Your task to perform on an android device: turn off notifications in google photos Image 0: 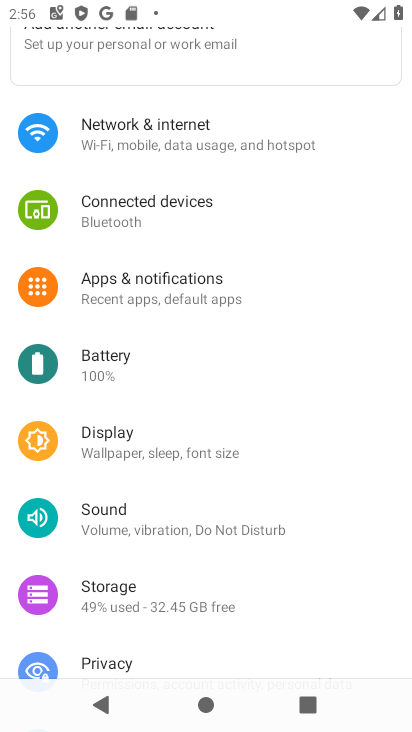
Step 0: press home button
Your task to perform on an android device: turn off notifications in google photos Image 1: 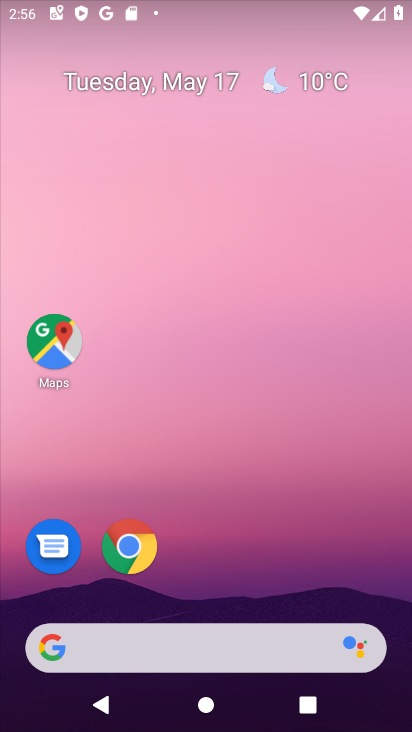
Step 1: drag from (247, 586) to (302, 9)
Your task to perform on an android device: turn off notifications in google photos Image 2: 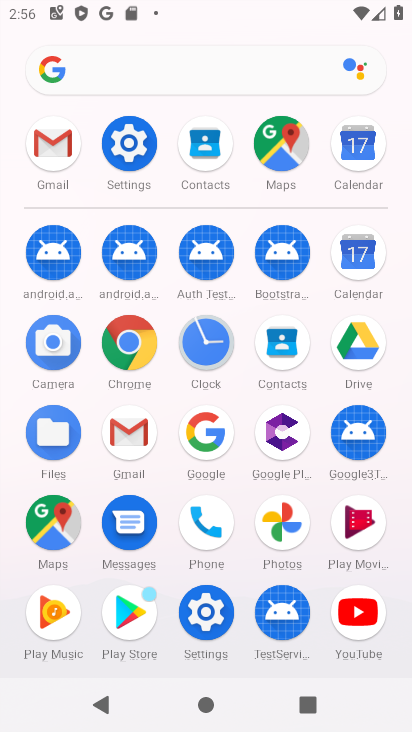
Step 2: click (291, 532)
Your task to perform on an android device: turn off notifications in google photos Image 3: 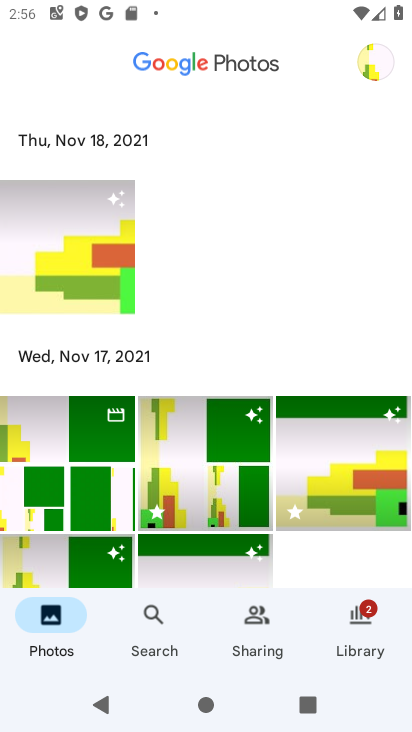
Step 3: click (374, 50)
Your task to perform on an android device: turn off notifications in google photos Image 4: 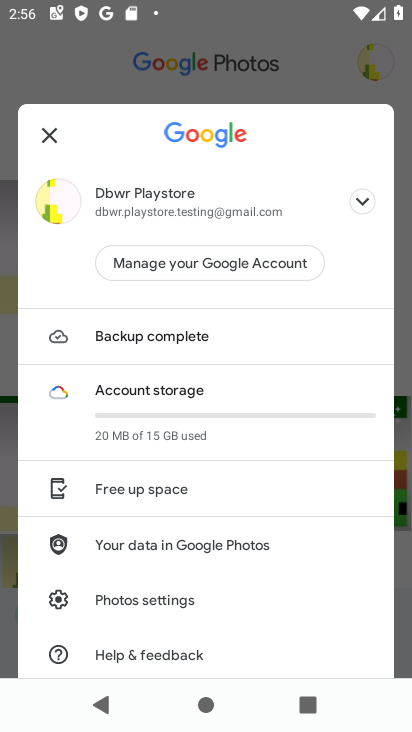
Step 4: click (181, 602)
Your task to perform on an android device: turn off notifications in google photos Image 5: 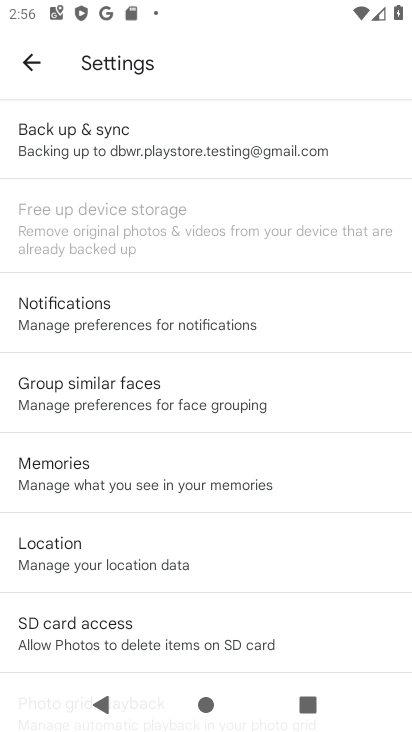
Step 5: click (182, 329)
Your task to perform on an android device: turn off notifications in google photos Image 6: 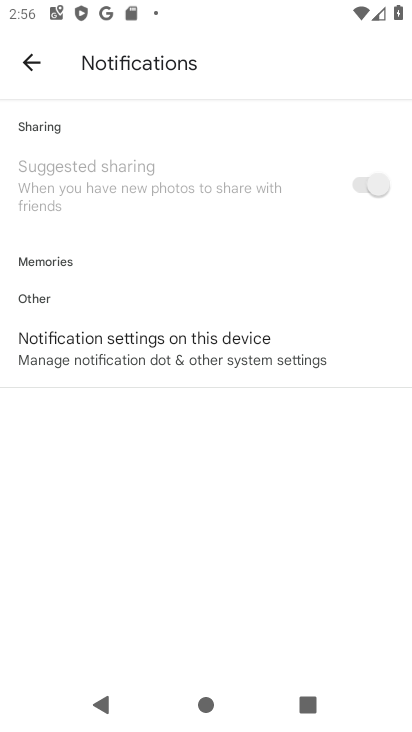
Step 6: click (126, 339)
Your task to perform on an android device: turn off notifications in google photos Image 7: 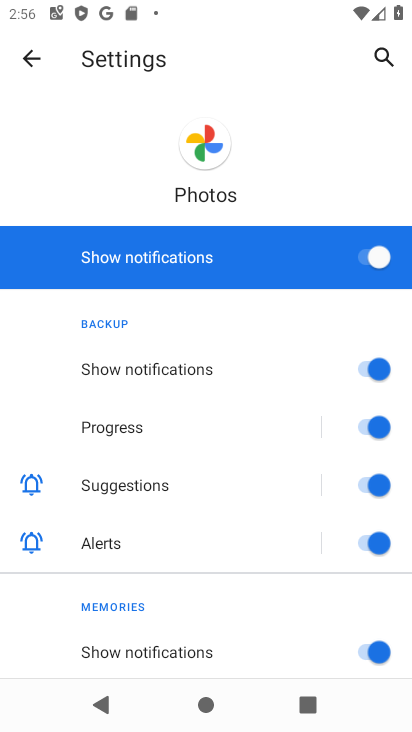
Step 7: click (346, 253)
Your task to perform on an android device: turn off notifications in google photos Image 8: 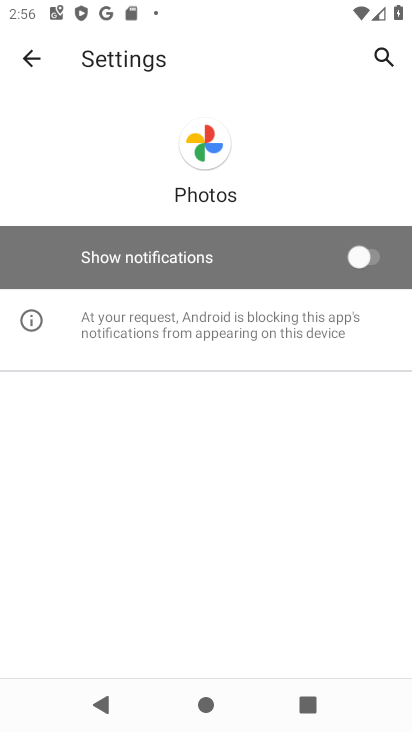
Step 8: task complete